Your task to perform on an android device: Go to Wikipedia Image 0: 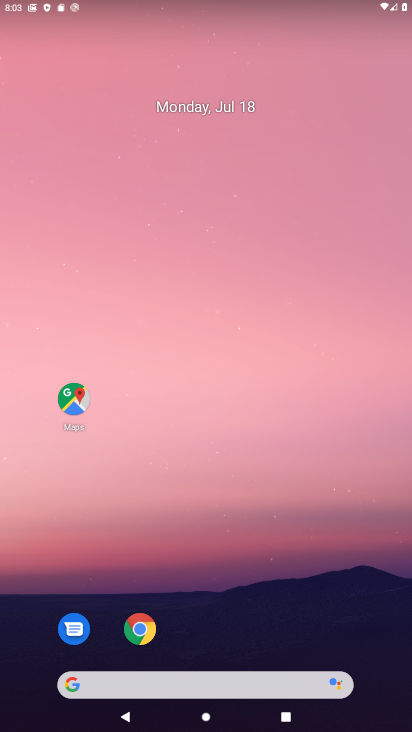
Step 0: click (145, 635)
Your task to perform on an android device: Go to Wikipedia Image 1: 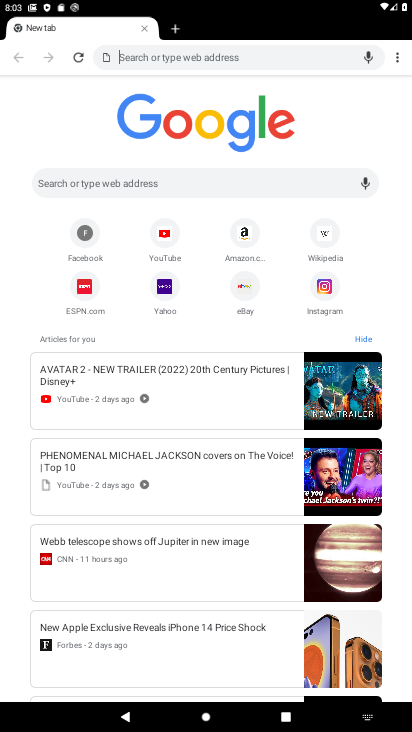
Step 1: click (327, 236)
Your task to perform on an android device: Go to Wikipedia Image 2: 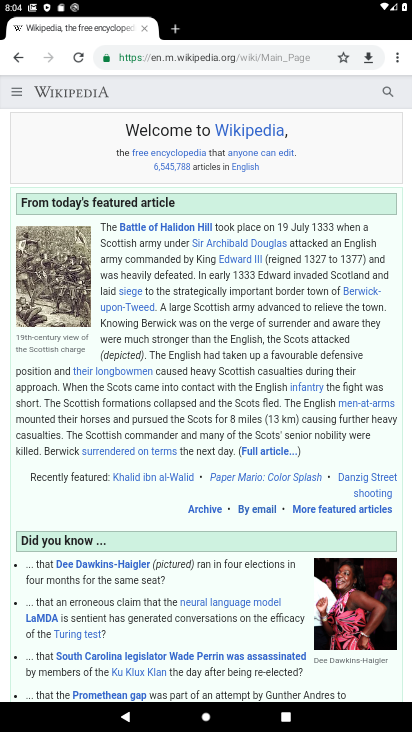
Step 2: task complete